Your task to perform on an android device: Go to Maps Image 0: 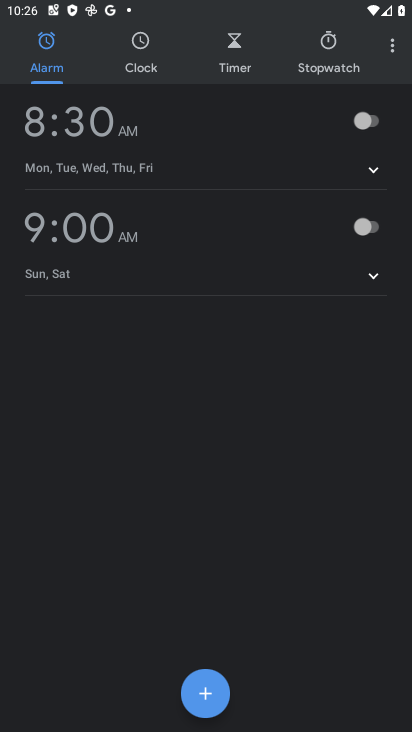
Step 0: press home button
Your task to perform on an android device: Go to Maps Image 1: 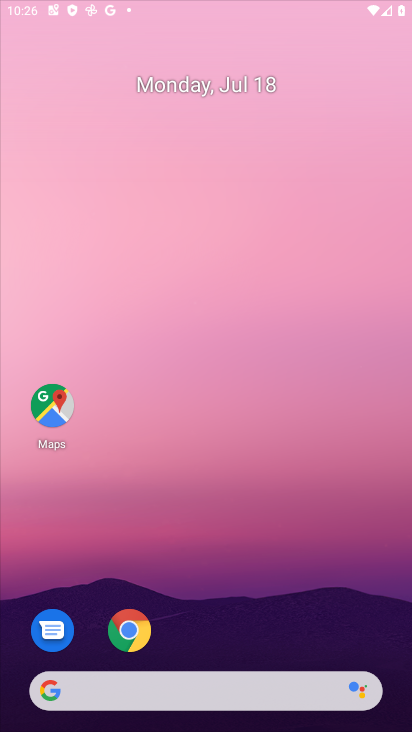
Step 1: drag from (388, 656) to (224, 86)
Your task to perform on an android device: Go to Maps Image 2: 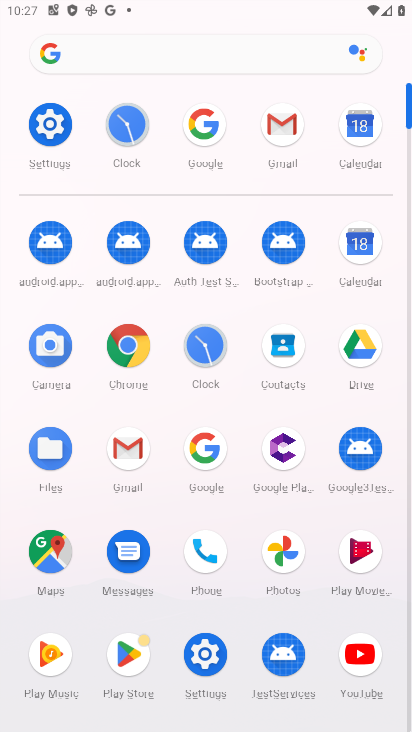
Step 2: click (36, 563)
Your task to perform on an android device: Go to Maps Image 3: 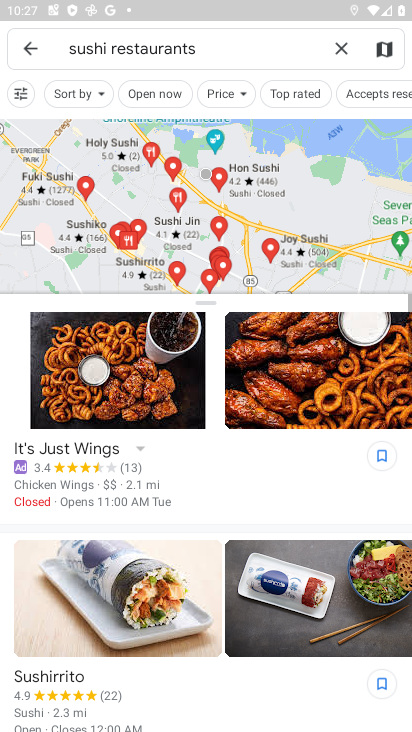
Step 3: click (338, 37)
Your task to perform on an android device: Go to Maps Image 4: 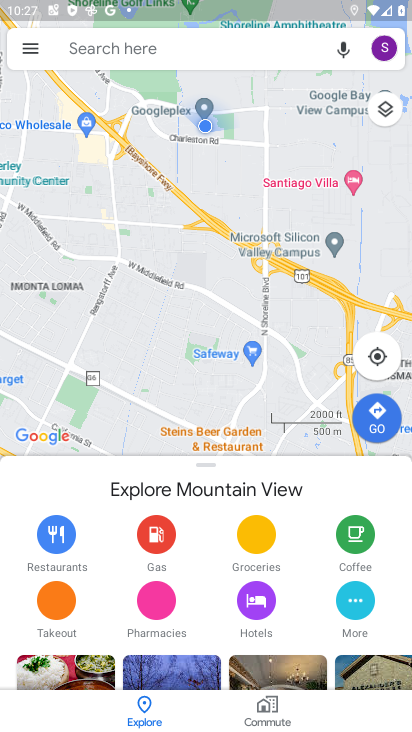
Step 4: task complete